Your task to perform on an android device: Turn off the flashlight Image 0: 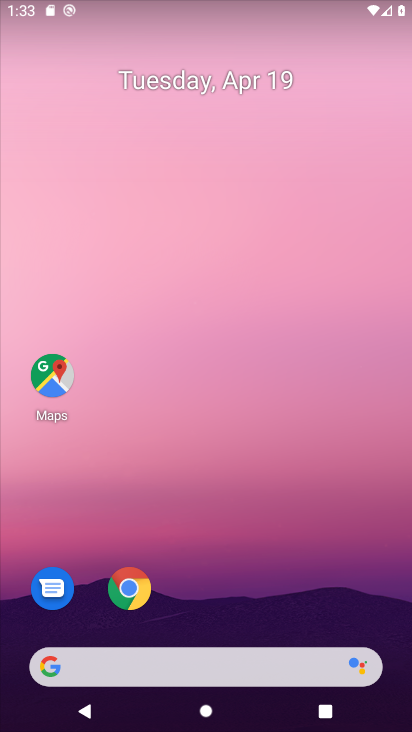
Step 0: task impossible